Your task to perform on an android device: find which apps use the phone's location Image 0: 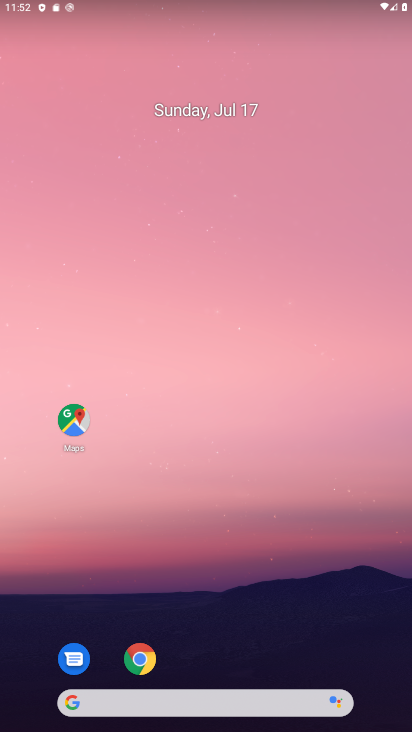
Step 0: drag from (172, 89) to (164, 35)
Your task to perform on an android device: find which apps use the phone's location Image 1: 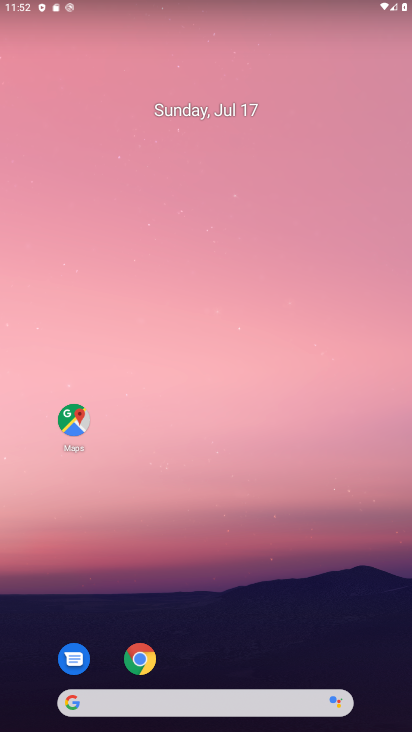
Step 1: drag from (239, 549) to (126, 48)
Your task to perform on an android device: find which apps use the phone's location Image 2: 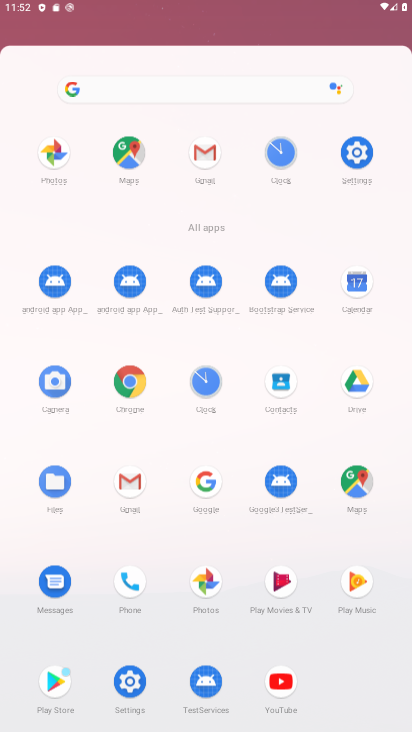
Step 2: drag from (210, 377) to (214, 62)
Your task to perform on an android device: find which apps use the phone's location Image 3: 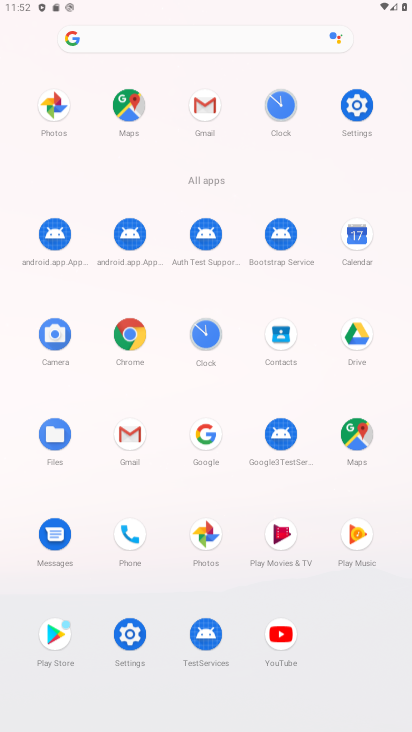
Step 3: drag from (216, 411) to (128, 143)
Your task to perform on an android device: find which apps use the phone's location Image 4: 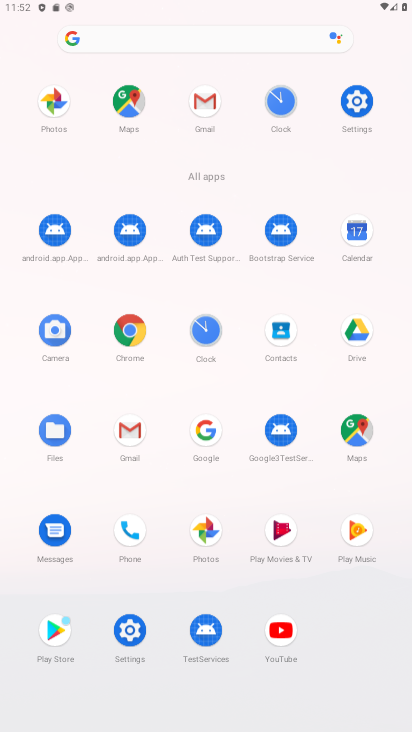
Step 4: drag from (272, 544) to (206, 109)
Your task to perform on an android device: find which apps use the phone's location Image 5: 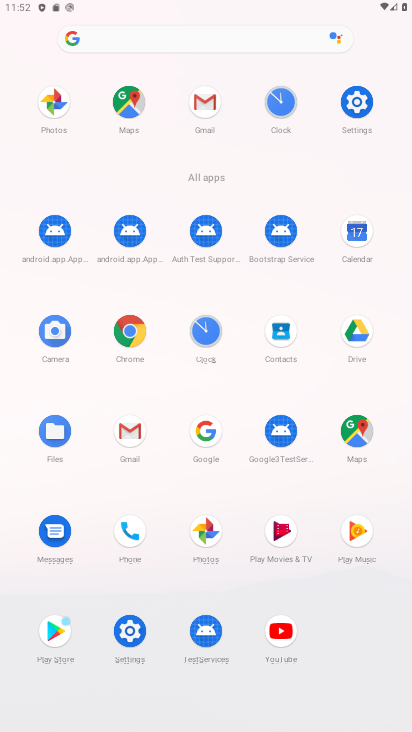
Step 5: click (132, 622)
Your task to perform on an android device: find which apps use the phone's location Image 6: 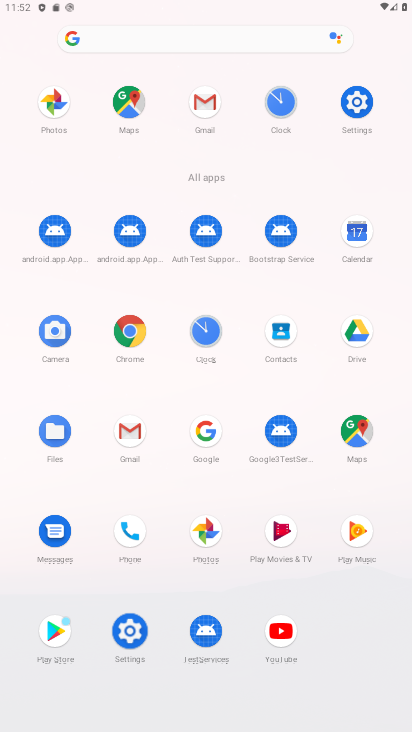
Step 6: click (145, 641)
Your task to perform on an android device: find which apps use the phone's location Image 7: 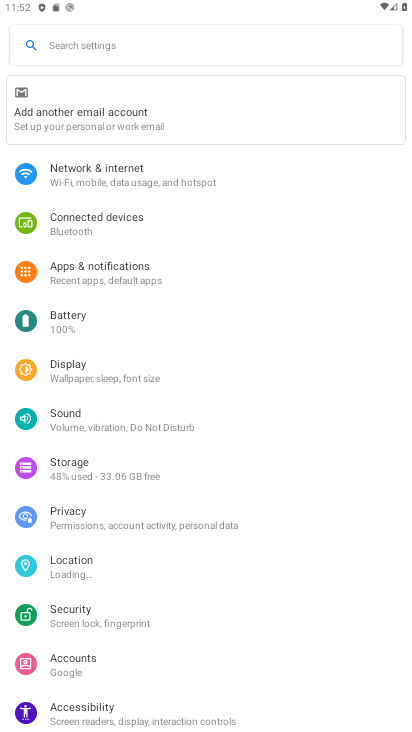
Step 7: click (68, 561)
Your task to perform on an android device: find which apps use the phone's location Image 8: 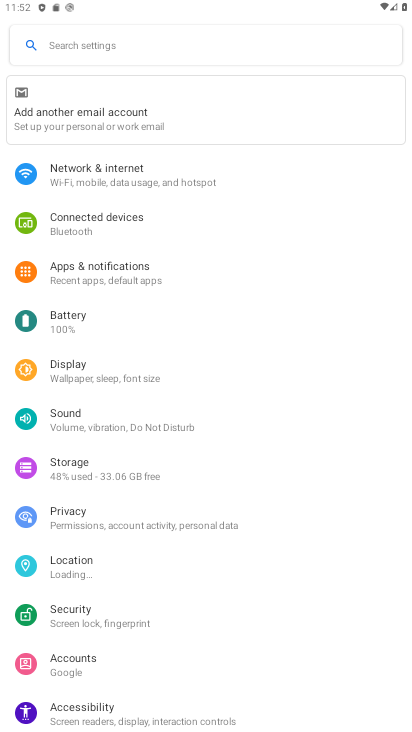
Step 8: click (68, 561)
Your task to perform on an android device: find which apps use the phone's location Image 9: 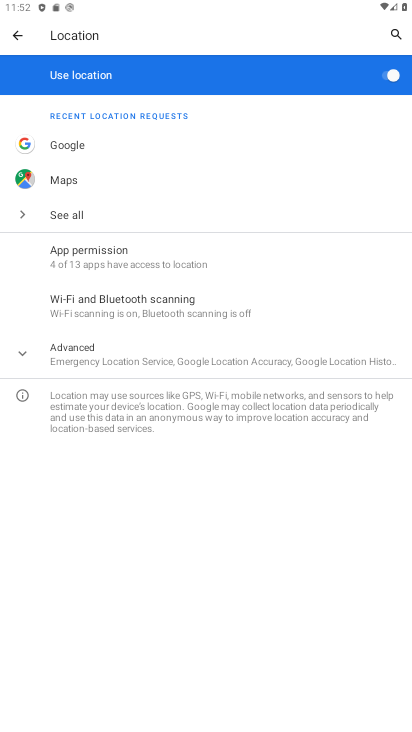
Step 9: click (107, 260)
Your task to perform on an android device: find which apps use the phone's location Image 10: 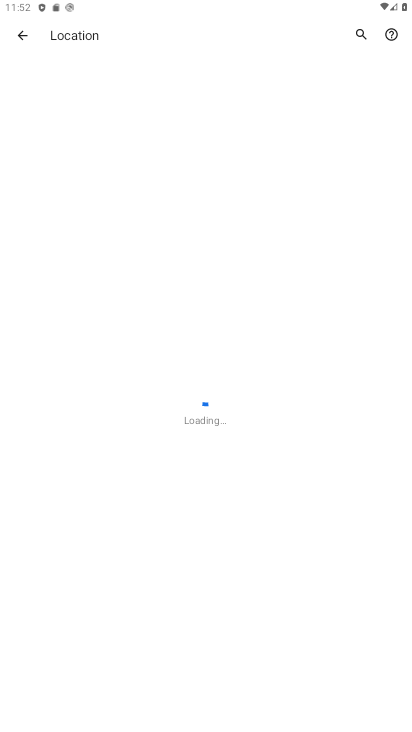
Step 10: click (100, 251)
Your task to perform on an android device: find which apps use the phone's location Image 11: 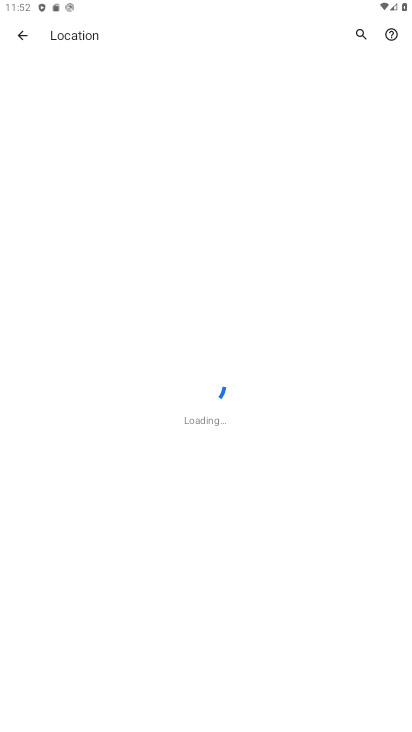
Step 11: click (103, 251)
Your task to perform on an android device: find which apps use the phone's location Image 12: 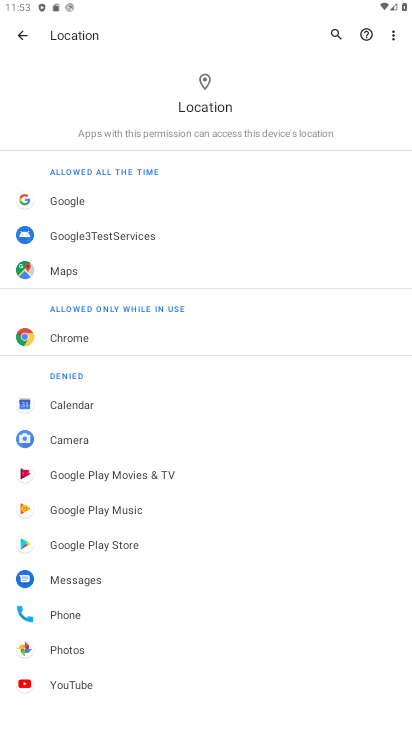
Step 12: task complete